Your task to perform on an android device: Open calendar and show me the second week of next month Image 0: 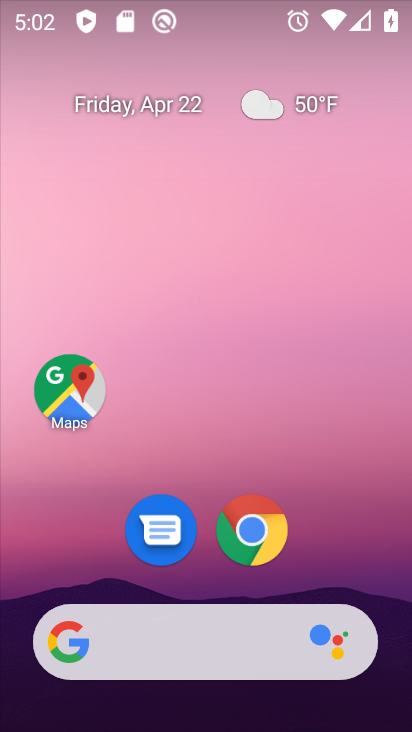
Step 0: drag from (331, 486) to (331, 167)
Your task to perform on an android device: Open calendar and show me the second week of next month Image 1: 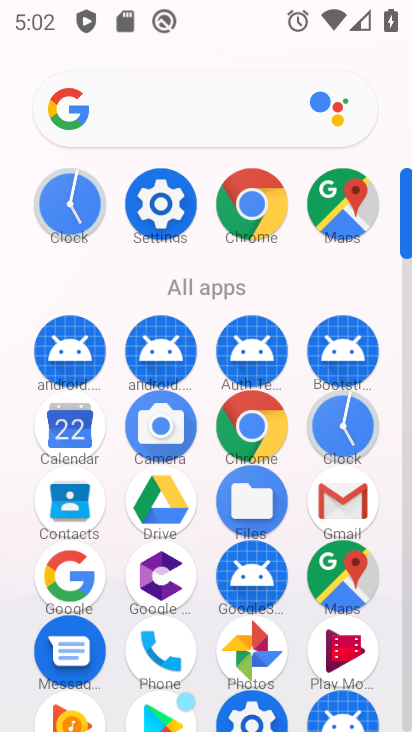
Step 1: click (68, 423)
Your task to perform on an android device: Open calendar and show me the second week of next month Image 2: 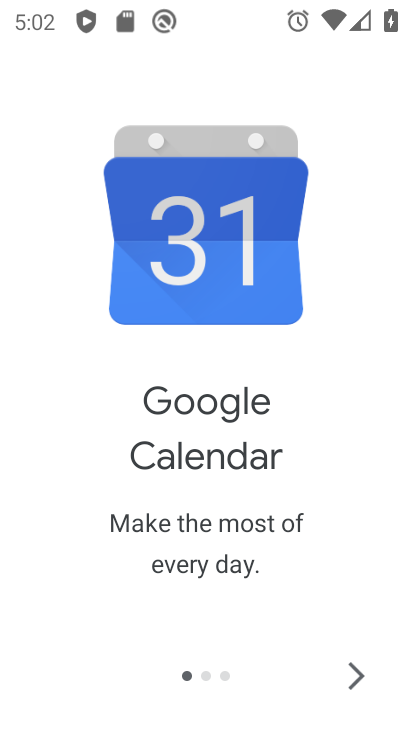
Step 2: click (361, 672)
Your task to perform on an android device: Open calendar and show me the second week of next month Image 3: 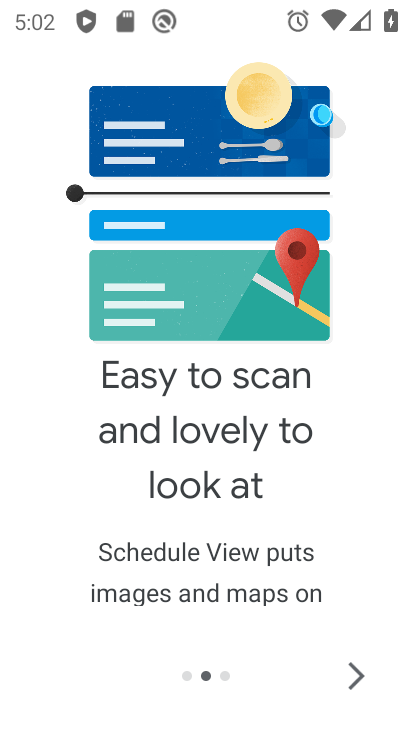
Step 3: click (361, 672)
Your task to perform on an android device: Open calendar and show me the second week of next month Image 4: 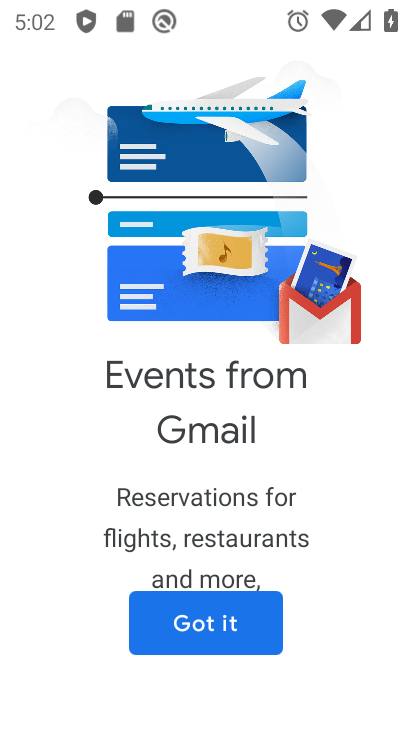
Step 4: click (261, 628)
Your task to perform on an android device: Open calendar and show me the second week of next month Image 5: 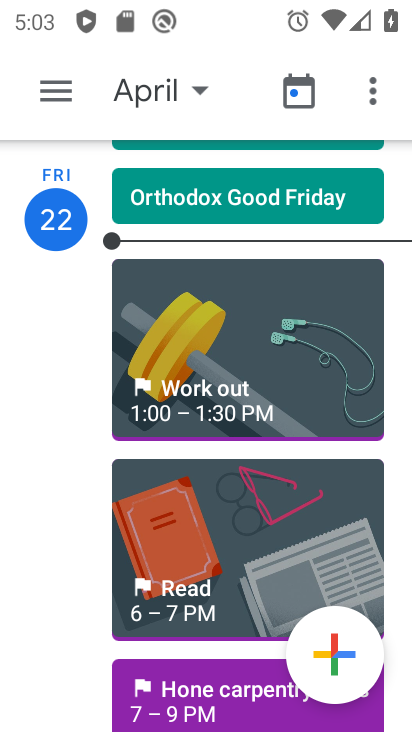
Step 5: click (192, 89)
Your task to perform on an android device: Open calendar and show me the second week of next month Image 6: 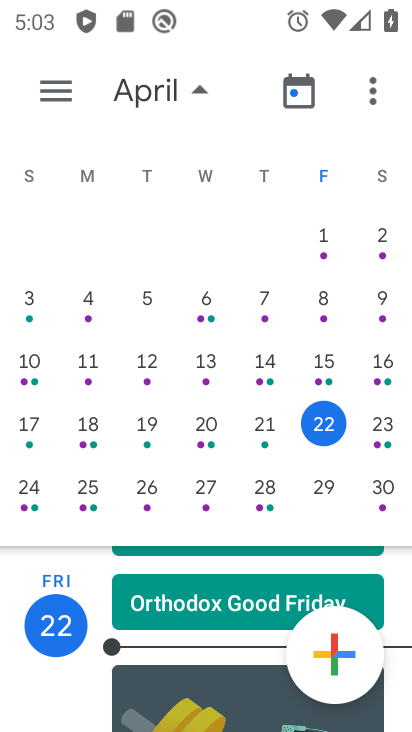
Step 6: drag from (388, 275) to (16, 283)
Your task to perform on an android device: Open calendar and show me the second week of next month Image 7: 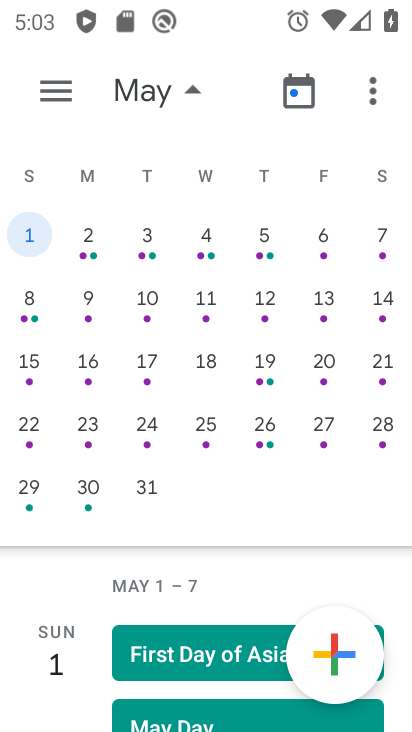
Step 7: click (210, 301)
Your task to perform on an android device: Open calendar and show me the second week of next month Image 8: 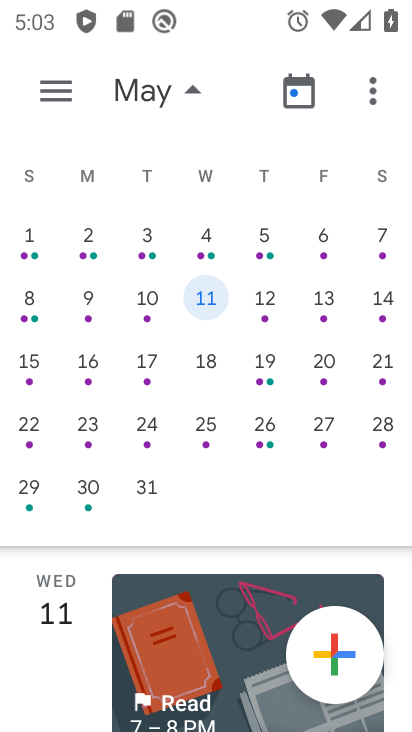
Step 8: task complete